Your task to perform on an android device: Open calendar and show me the second week of next month Image 0: 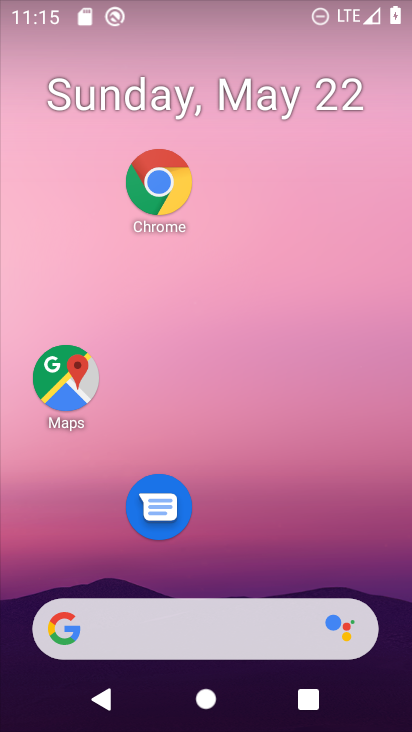
Step 0: drag from (282, 693) to (269, 46)
Your task to perform on an android device: Open calendar and show me the second week of next month Image 1: 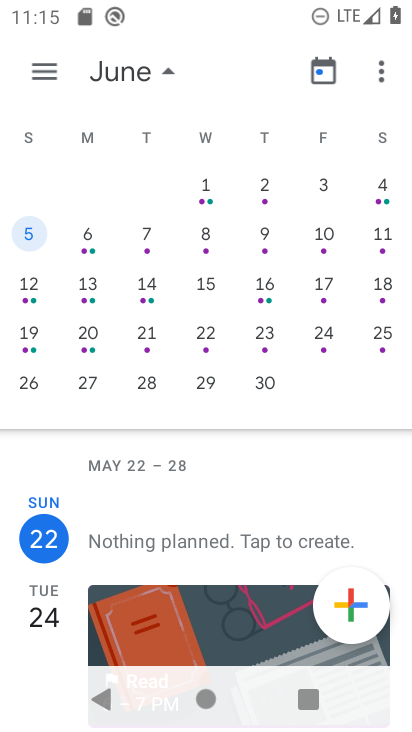
Step 1: task complete